Your task to perform on an android device: Open my contact list Image 0: 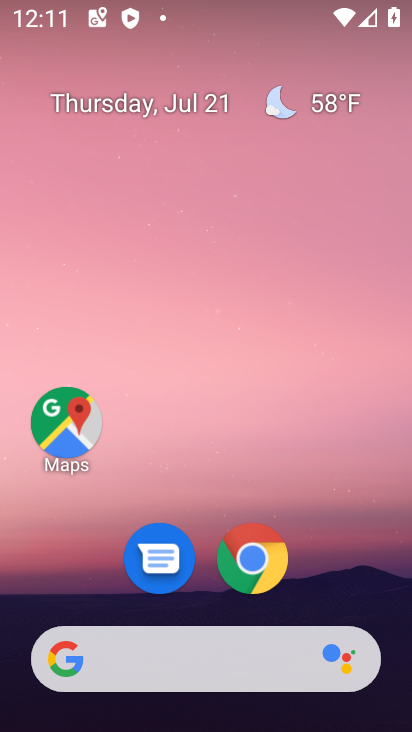
Step 0: drag from (82, 589) to (191, 52)
Your task to perform on an android device: Open my contact list Image 1: 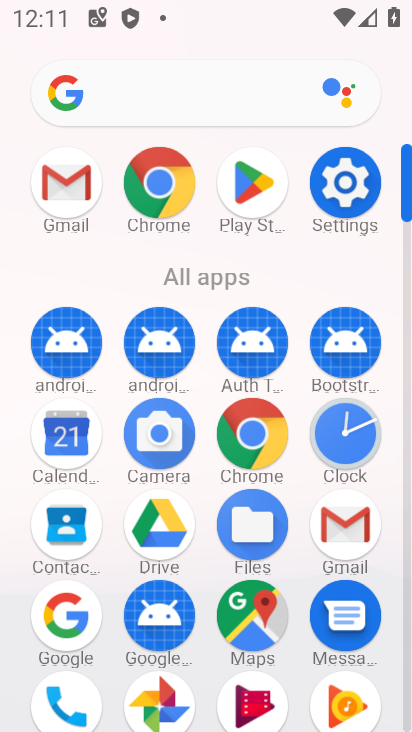
Step 1: click (66, 534)
Your task to perform on an android device: Open my contact list Image 2: 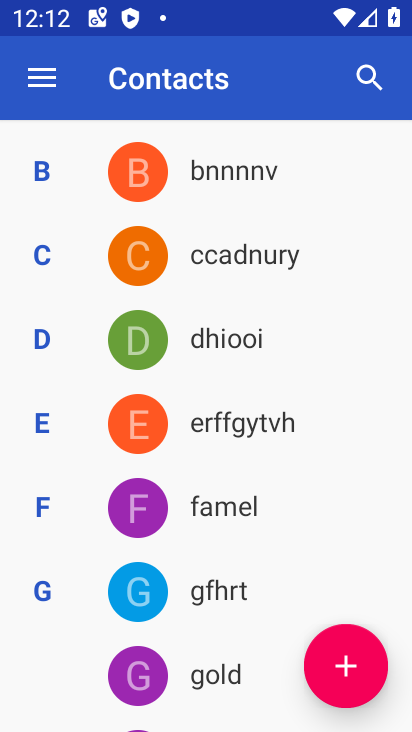
Step 2: task complete